Your task to perform on an android device: open device folders in google photos Image 0: 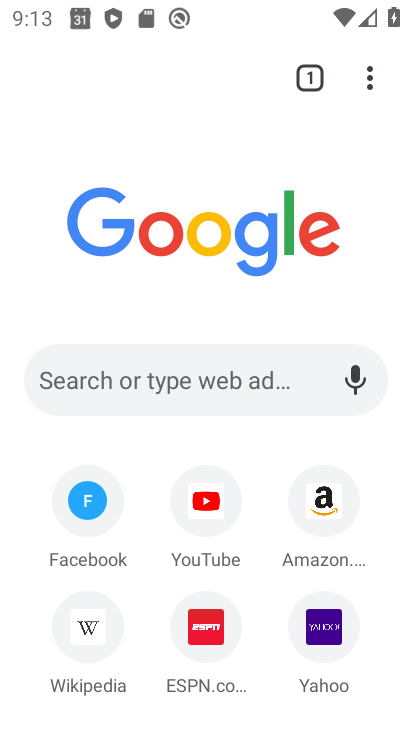
Step 0: press back button
Your task to perform on an android device: open device folders in google photos Image 1: 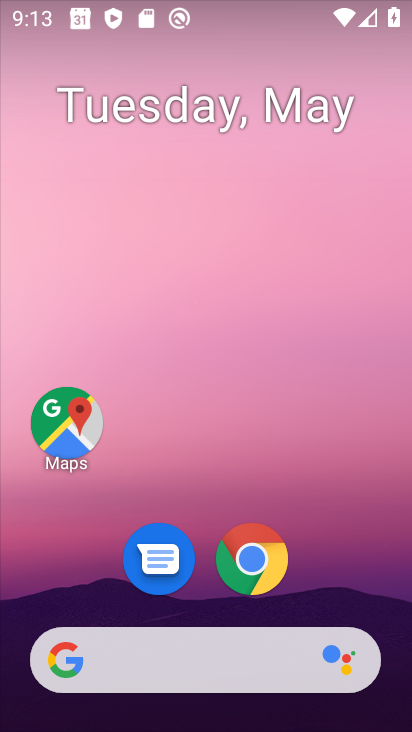
Step 1: drag from (376, 592) to (173, 28)
Your task to perform on an android device: open device folders in google photos Image 2: 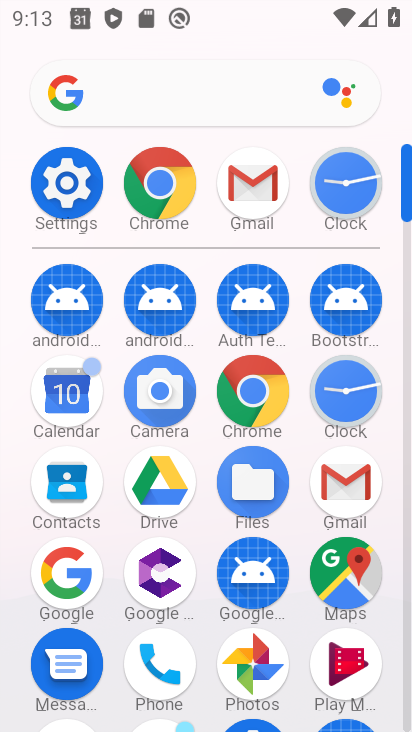
Step 2: click (259, 665)
Your task to perform on an android device: open device folders in google photos Image 3: 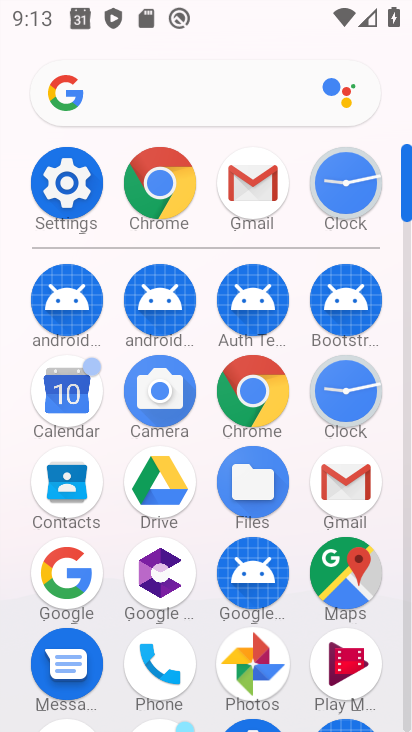
Step 3: click (251, 687)
Your task to perform on an android device: open device folders in google photos Image 4: 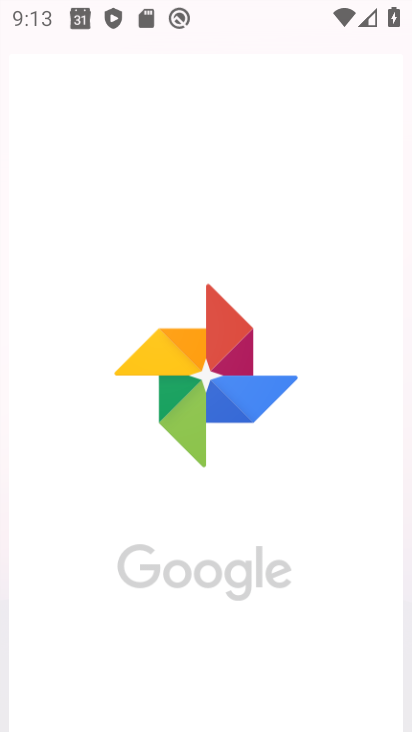
Step 4: click (258, 662)
Your task to perform on an android device: open device folders in google photos Image 5: 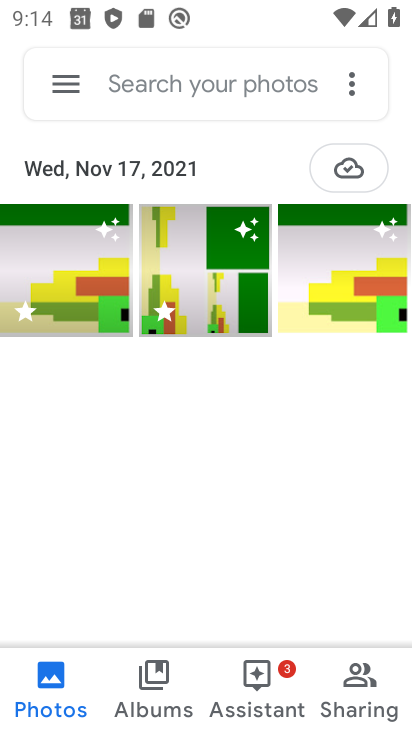
Step 5: click (63, 83)
Your task to perform on an android device: open device folders in google photos Image 6: 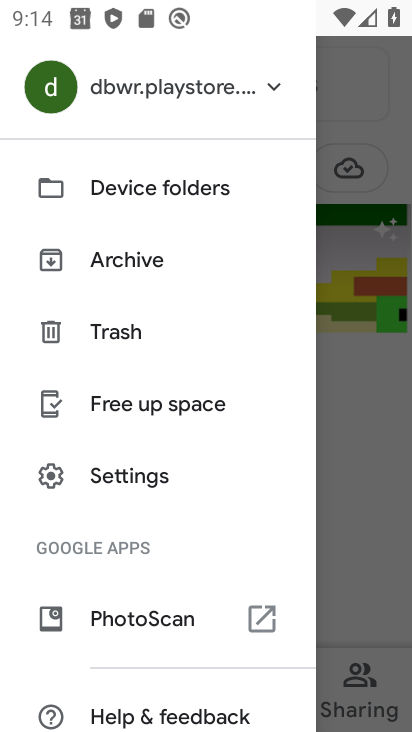
Step 6: click (116, 189)
Your task to perform on an android device: open device folders in google photos Image 7: 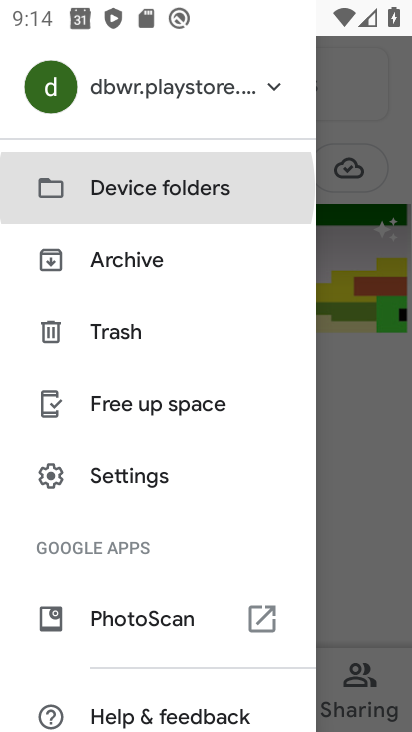
Step 7: click (116, 189)
Your task to perform on an android device: open device folders in google photos Image 8: 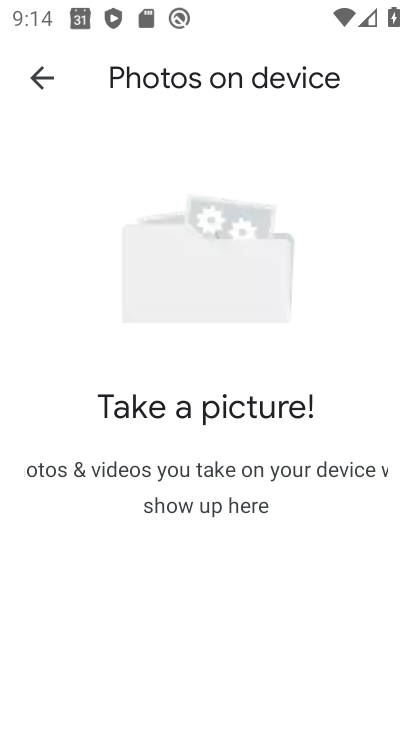
Step 8: task complete